Your task to perform on an android device: check out phone information Image 0: 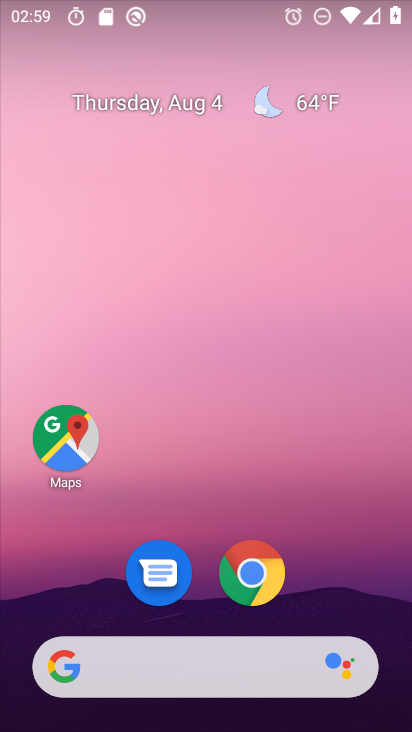
Step 0: drag from (361, 541) to (353, 0)
Your task to perform on an android device: check out phone information Image 1: 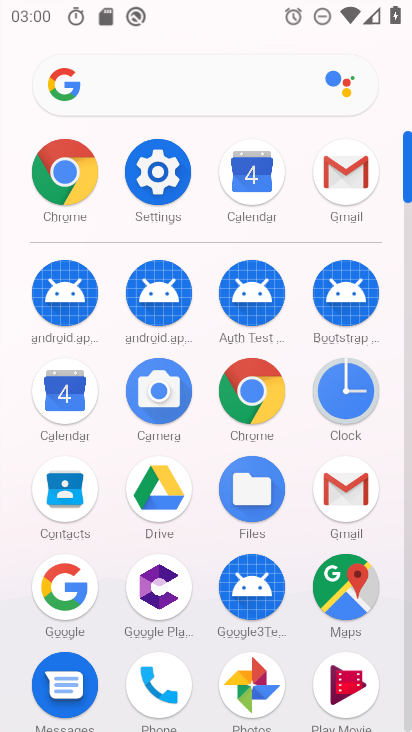
Step 1: click (164, 667)
Your task to perform on an android device: check out phone information Image 2: 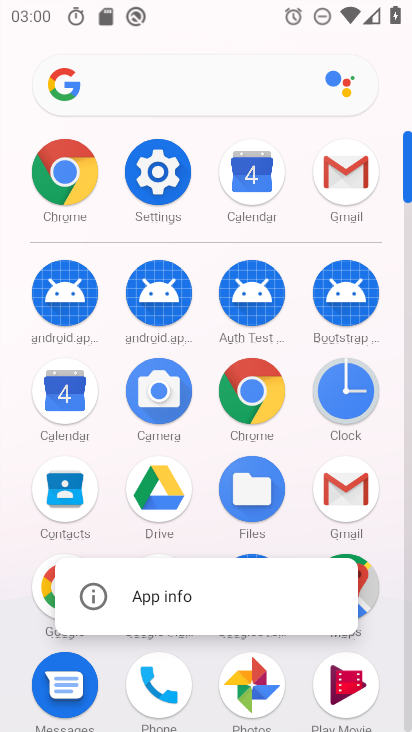
Step 2: click (169, 610)
Your task to perform on an android device: check out phone information Image 3: 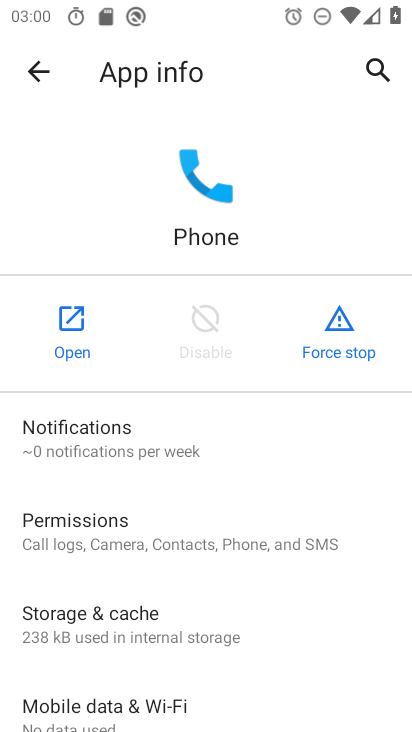
Step 3: drag from (232, 678) to (251, 214)
Your task to perform on an android device: check out phone information Image 4: 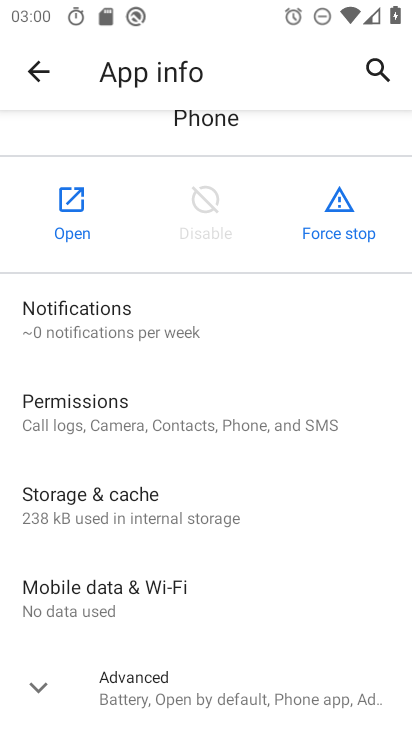
Step 4: click (178, 671)
Your task to perform on an android device: check out phone information Image 5: 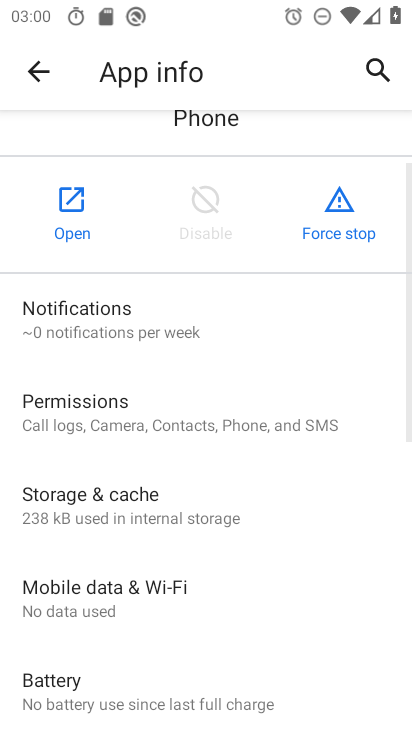
Step 5: task complete